Your task to perform on an android device: clear all cookies in the chrome app Image 0: 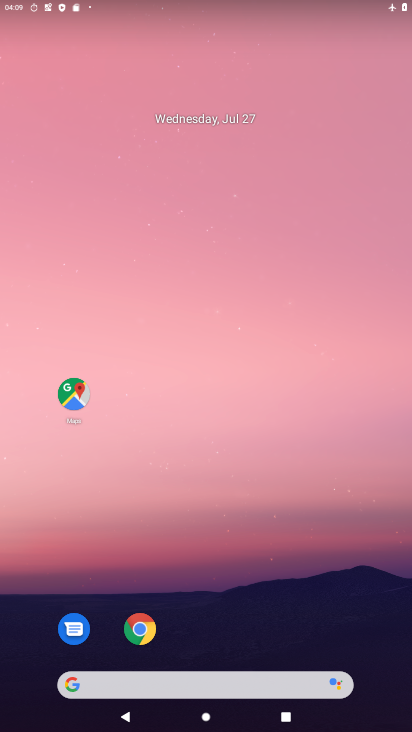
Step 0: drag from (350, 590) to (267, 91)
Your task to perform on an android device: clear all cookies in the chrome app Image 1: 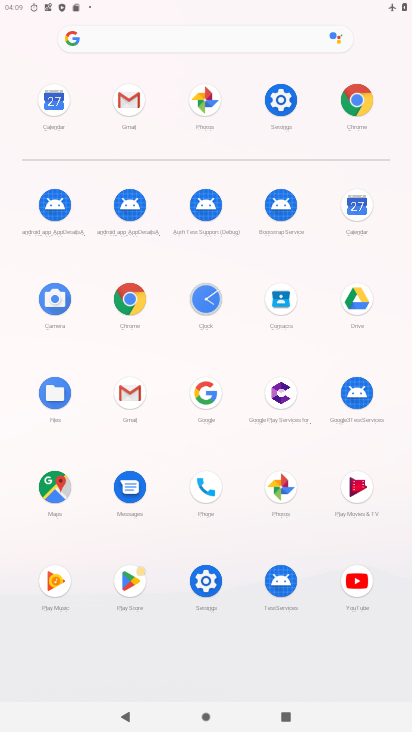
Step 1: click (357, 107)
Your task to perform on an android device: clear all cookies in the chrome app Image 2: 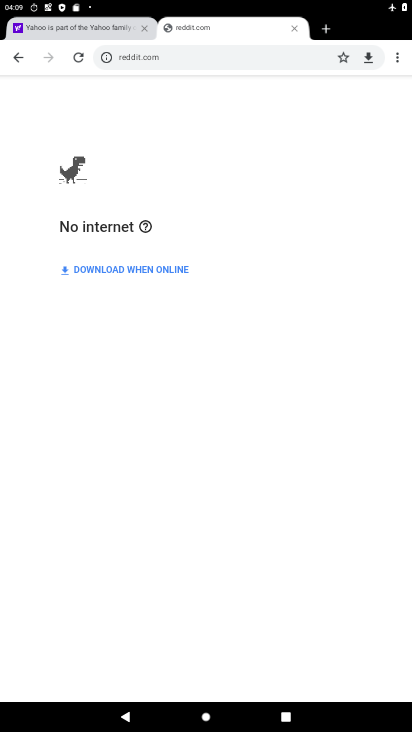
Step 2: task complete